Your task to perform on an android device: find snoozed emails in the gmail app Image 0: 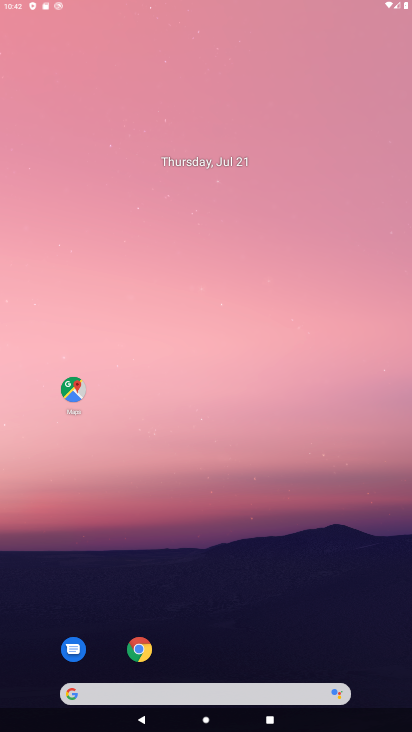
Step 0: press home button
Your task to perform on an android device: find snoozed emails in the gmail app Image 1: 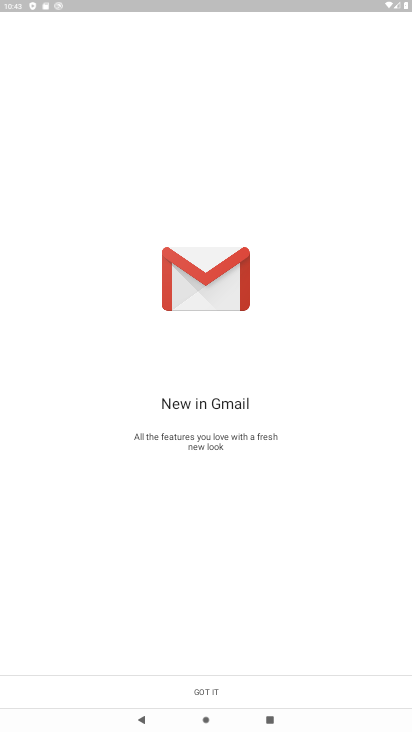
Step 1: drag from (392, 635) to (324, 175)
Your task to perform on an android device: find snoozed emails in the gmail app Image 2: 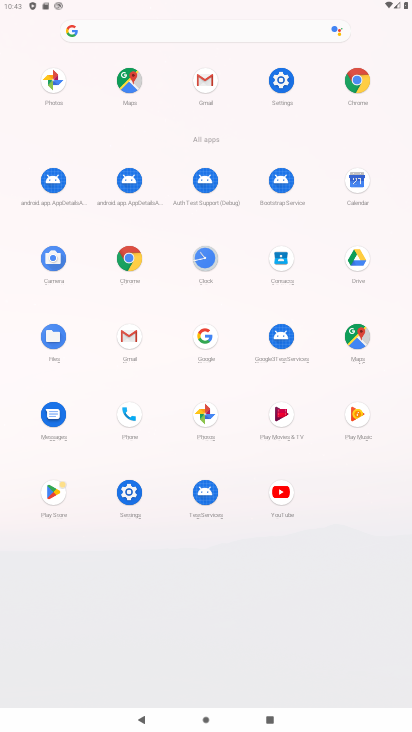
Step 2: click (125, 331)
Your task to perform on an android device: find snoozed emails in the gmail app Image 3: 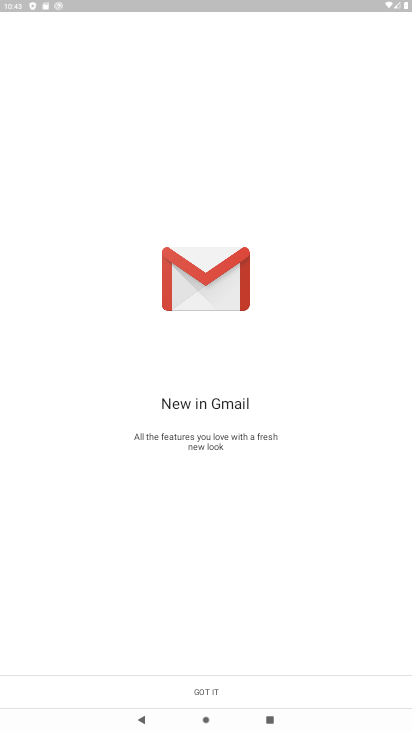
Step 3: click (228, 691)
Your task to perform on an android device: find snoozed emails in the gmail app Image 4: 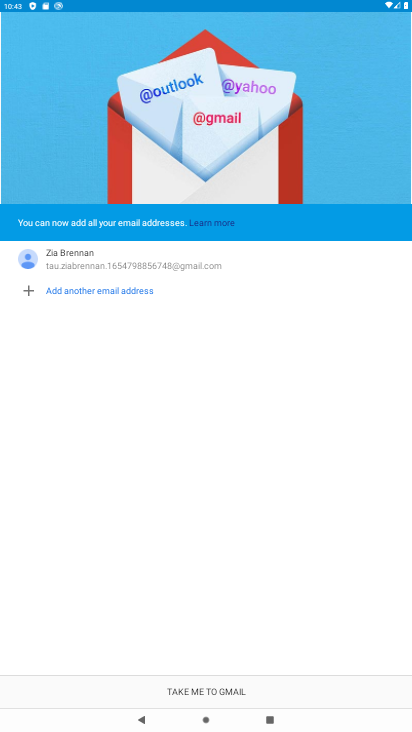
Step 4: click (212, 689)
Your task to perform on an android device: find snoozed emails in the gmail app Image 5: 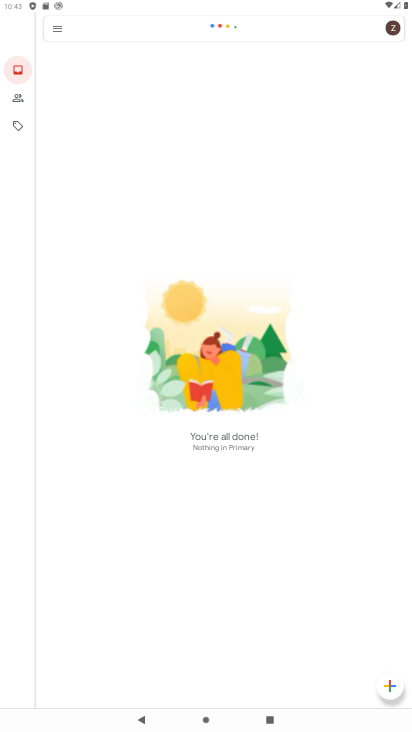
Step 5: click (52, 28)
Your task to perform on an android device: find snoozed emails in the gmail app Image 6: 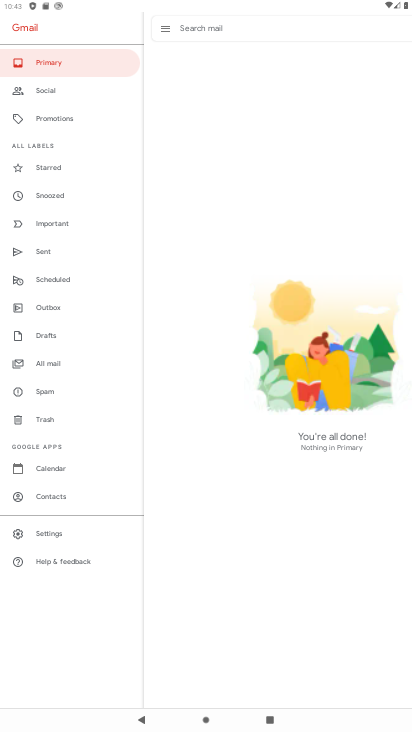
Step 6: click (44, 194)
Your task to perform on an android device: find snoozed emails in the gmail app Image 7: 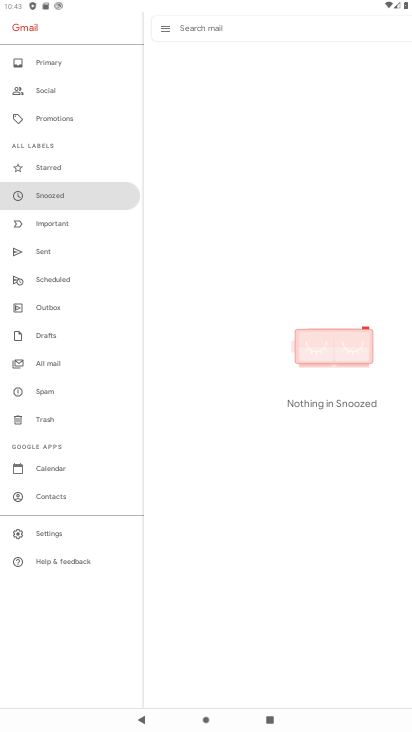
Step 7: task complete